Your task to perform on an android device: turn vacation reply on in the gmail app Image 0: 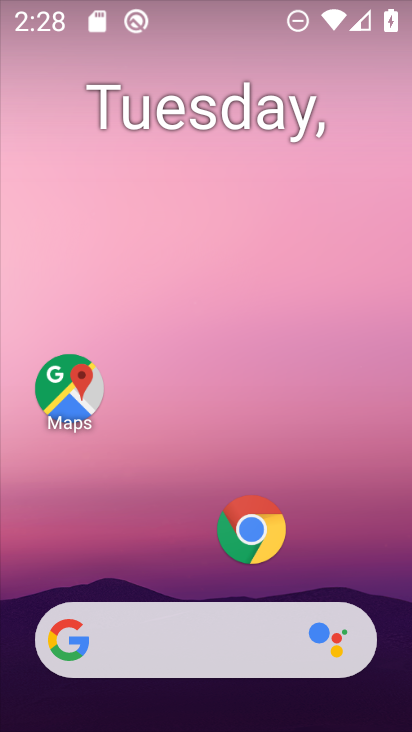
Step 0: press home button
Your task to perform on an android device: turn vacation reply on in the gmail app Image 1: 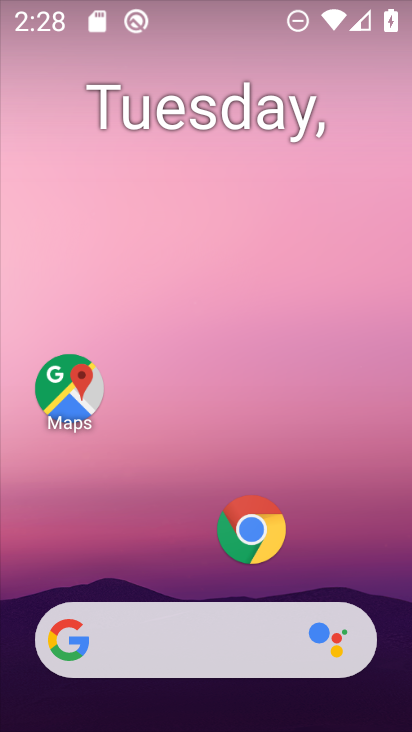
Step 1: drag from (245, 674) to (297, 8)
Your task to perform on an android device: turn vacation reply on in the gmail app Image 2: 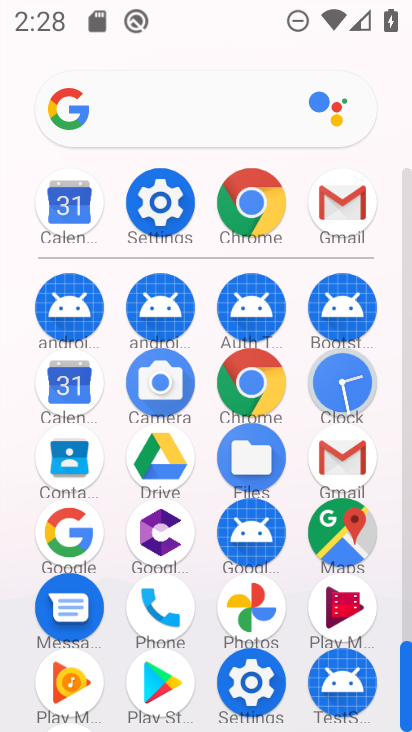
Step 2: click (322, 459)
Your task to perform on an android device: turn vacation reply on in the gmail app Image 3: 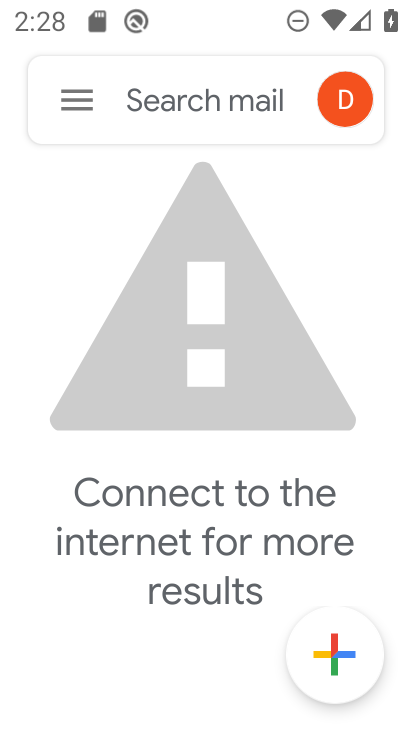
Step 3: click (70, 76)
Your task to perform on an android device: turn vacation reply on in the gmail app Image 4: 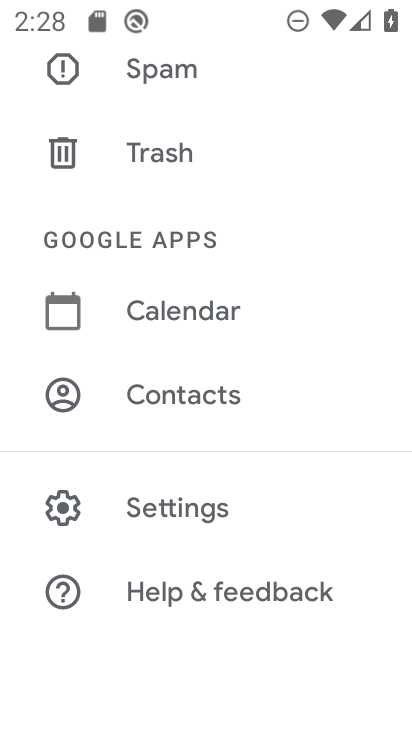
Step 4: click (161, 509)
Your task to perform on an android device: turn vacation reply on in the gmail app Image 5: 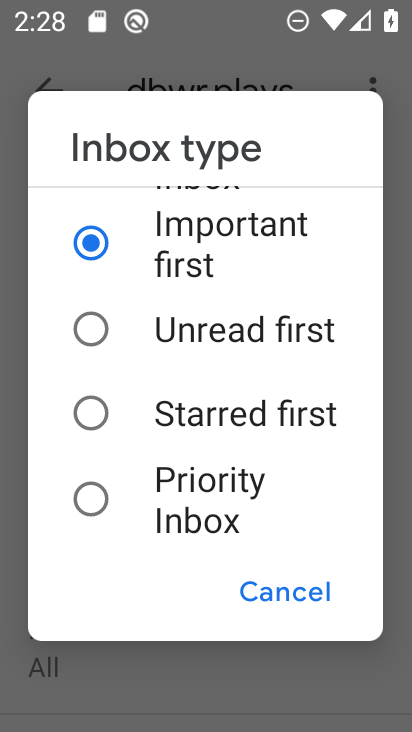
Step 5: click (290, 592)
Your task to perform on an android device: turn vacation reply on in the gmail app Image 6: 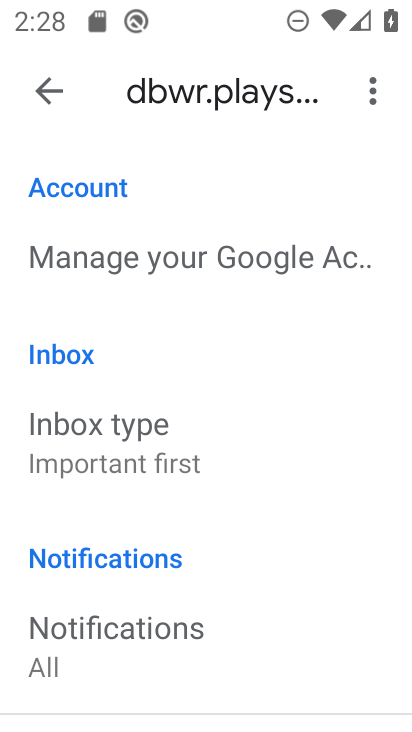
Step 6: drag from (195, 597) to (184, 4)
Your task to perform on an android device: turn vacation reply on in the gmail app Image 7: 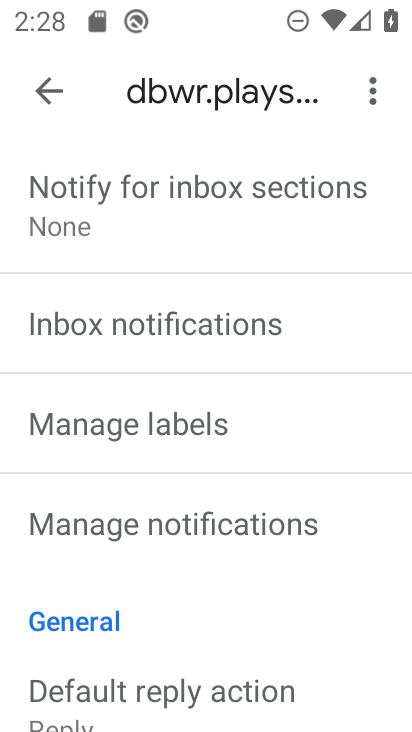
Step 7: drag from (147, 599) to (145, 223)
Your task to perform on an android device: turn vacation reply on in the gmail app Image 8: 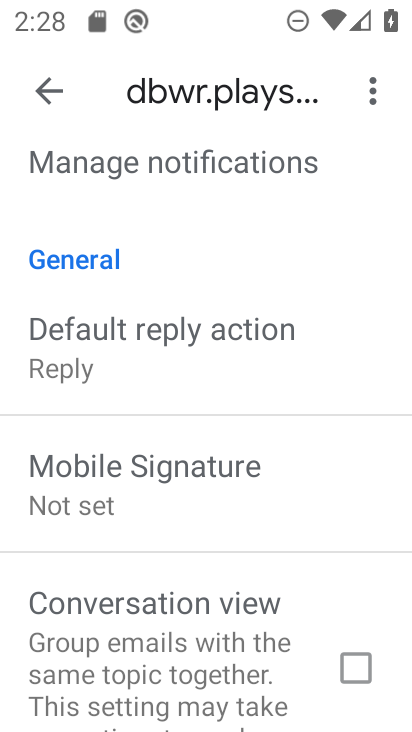
Step 8: drag from (121, 552) to (136, 48)
Your task to perform on an android device: turn vacation reply on in the gmail app Image 9: 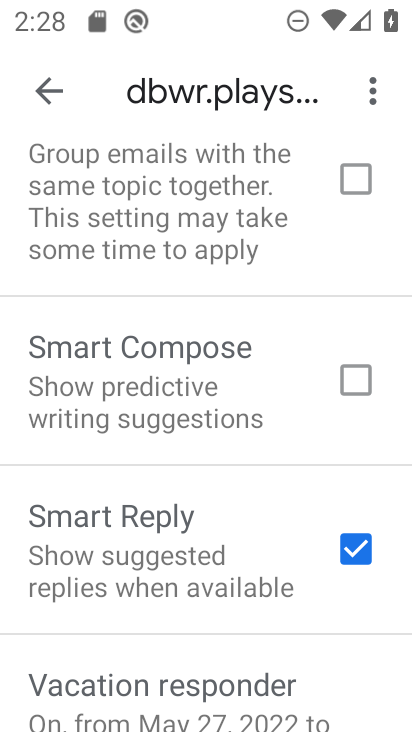
Step 9: click (140, 677)
Your task to perform on an android device: turn vacation reply on in the gmail app Image 10: 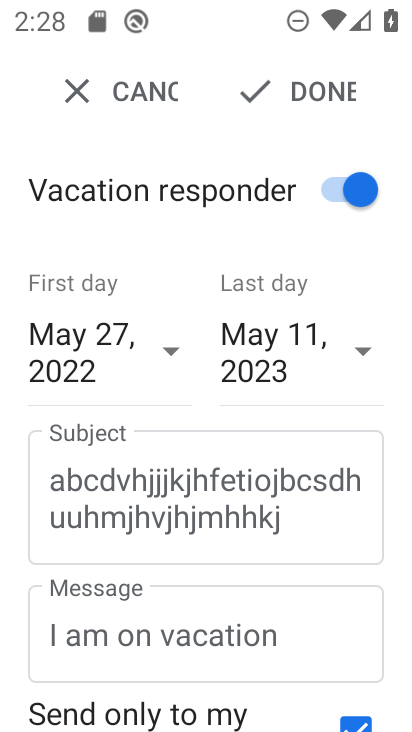
Step 10: task complete